Your task to perform on an android device: Open Chrome and go to settings Image 0: 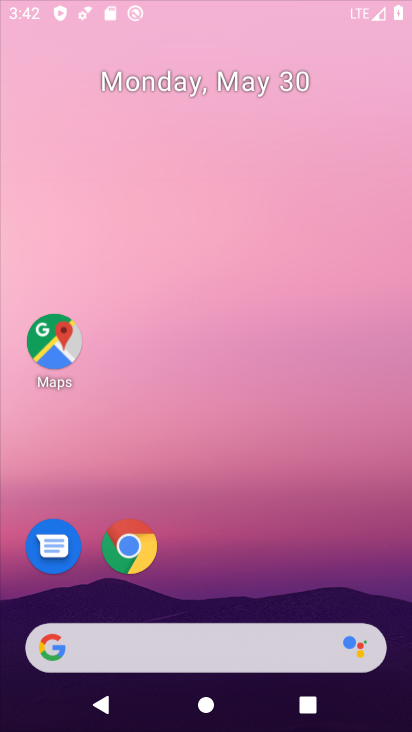
Step 0: click (381, 609)
Your task to perform on an android device: Open Chrome and go to settings Image 1: 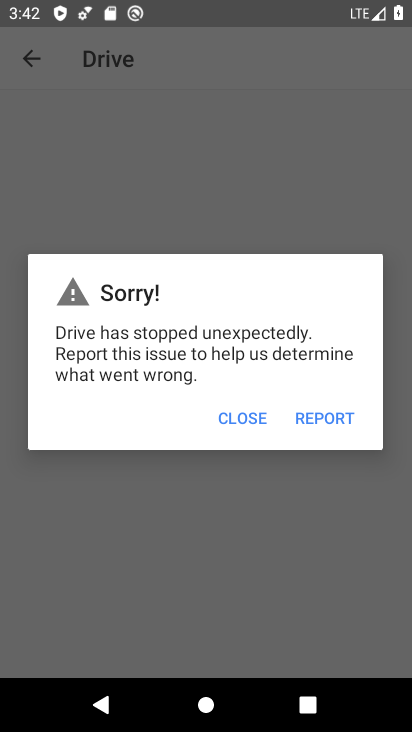
Step 1: click (224, 424)
Your task to perform on an android device: Open Chrome and go to settings Image 2: 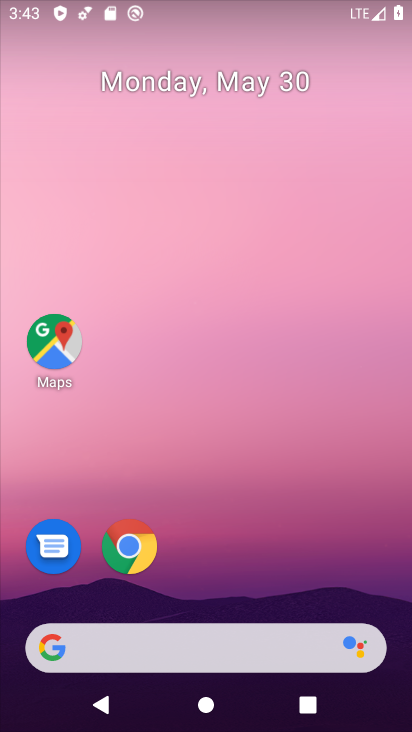
Step 2: click (138, 541)
Your task to perform on an android device: Open Chrome and go to settings Image 3: 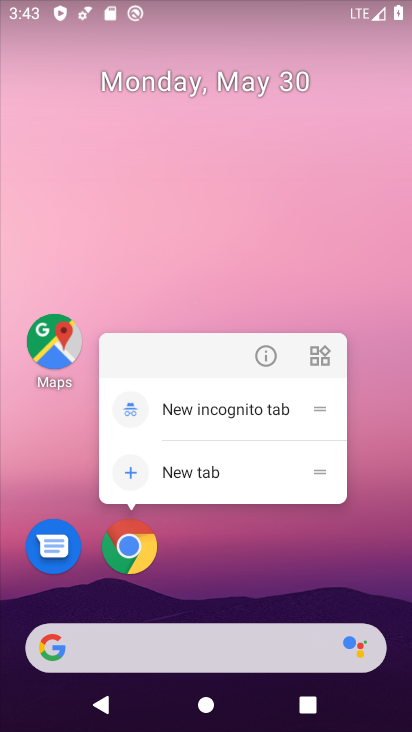
Step 3: click (138, 541)
Your task to perform on an android device: Open Chrome and go to settings Image 4: 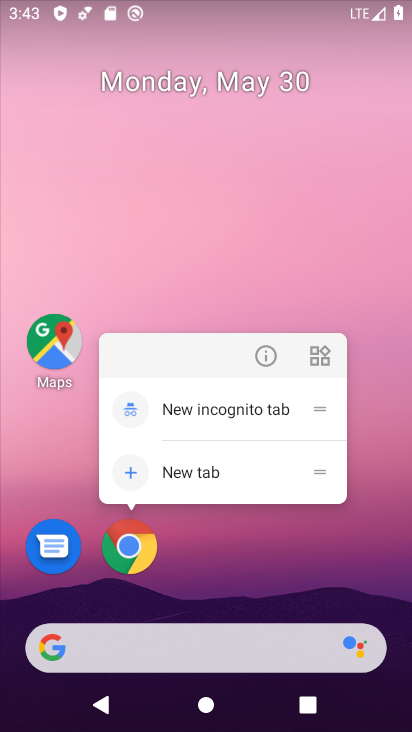
Step 4: click (138, 541)
Your task to perform on an android device: Open Chrome and go to settings Image 5: 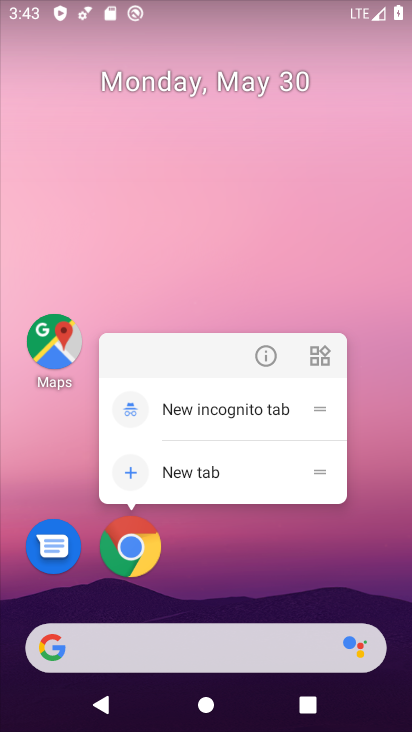
Step 5: click (138, 541)
Your task to perform on an android device: Open Chrome and go to settings Image 6: 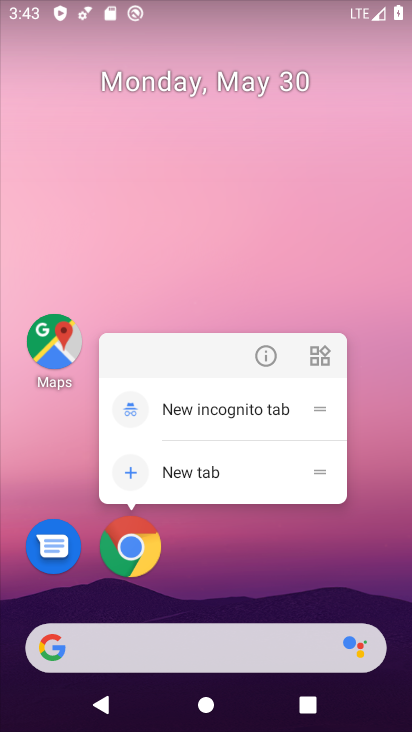
Step 6: click (138, 541)
Your task to perform on an android device: Open Chrome and go to settings Image 7: 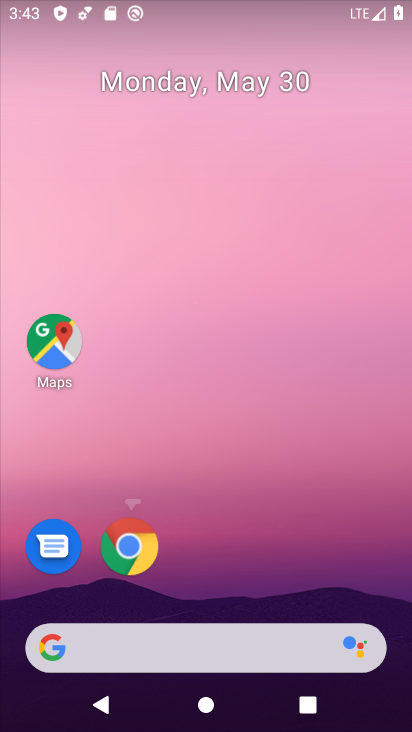
Step 7: click (138, 541)
Your task to perform on an android device: Open Chrome and go to settings Image 8: 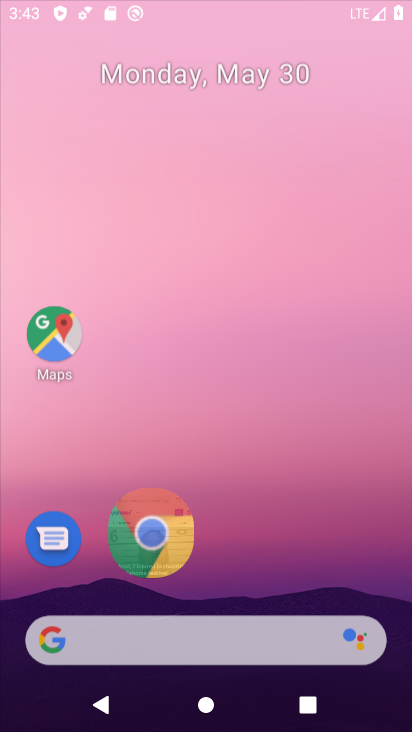
Step 8: click (138, 541)
Your task to perform on an android device: Open Chrome and go to settings Image 9: 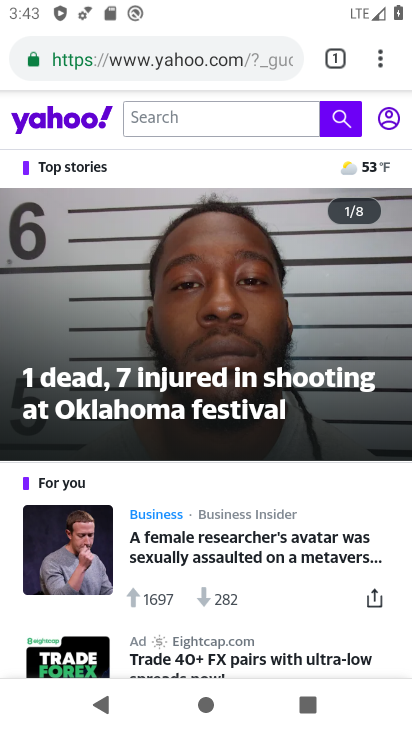
Step 9: click (337, 186)
Your task to perform on an android device: Open Chrome and go to settings Image 10: 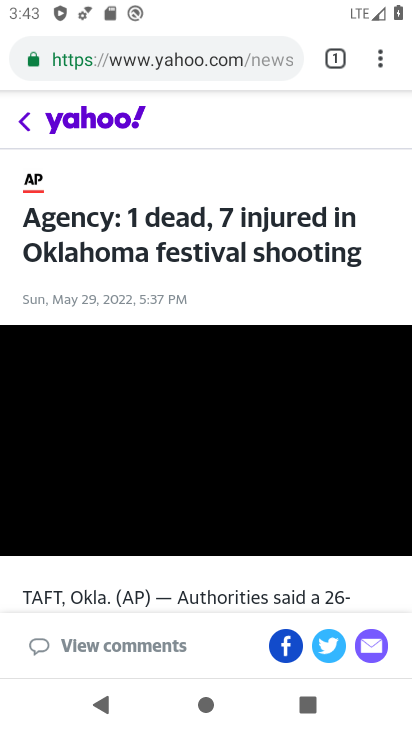
Step 10: click (385, 52)
Your task to perform on an android device: Open Chrome and go to settings Image 11: 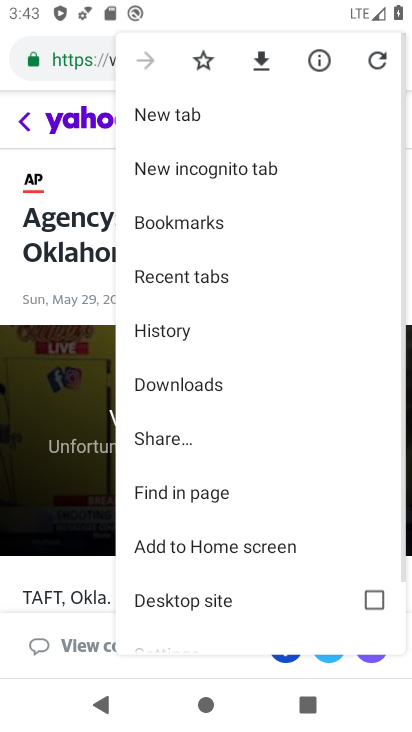
Step 11: drag from (180, 498) to (239, 109)
Your task to perform on an android device: Open Chrome and go to settings Image 12: 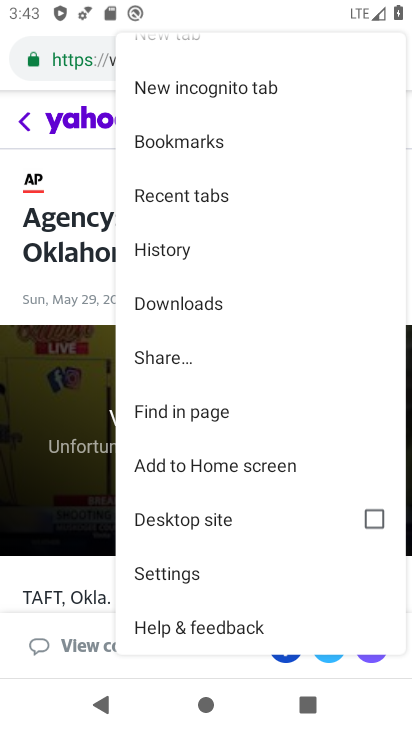
Step 12: click (171, 575)
Your task to perform on an android device: Open Chrome and go to settings Image 13: 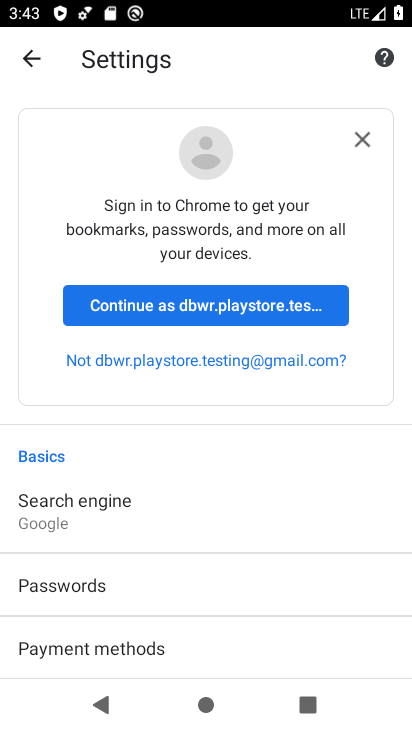
Step 13: task complete